Your task to perform on an android device: Check out the new ikea catalog. Image 0: 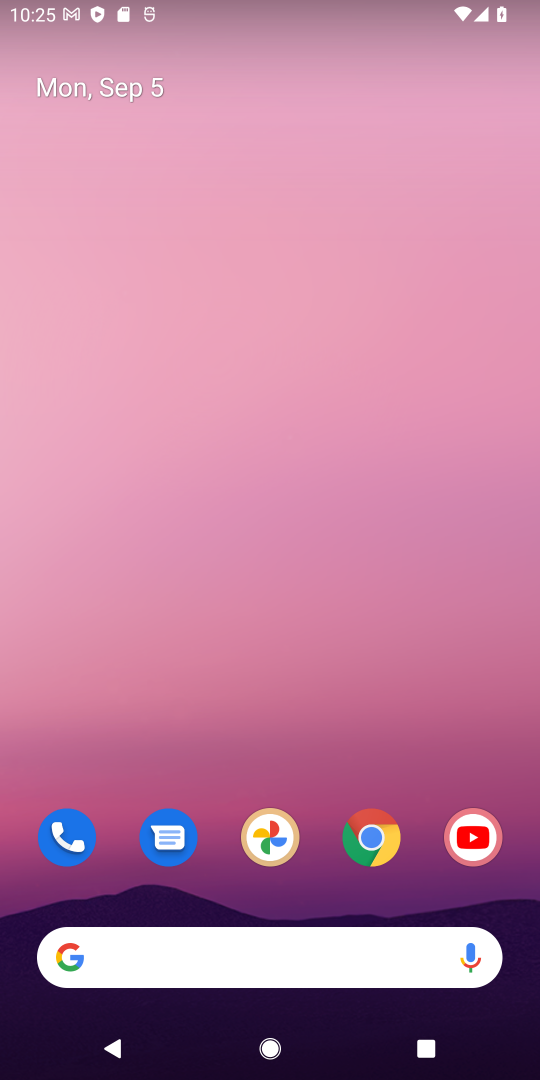
Step 0: drag from (315, 895) to (302, 113)
Your task to perform on an android device: Check out the new ikea catalog. Image 1: 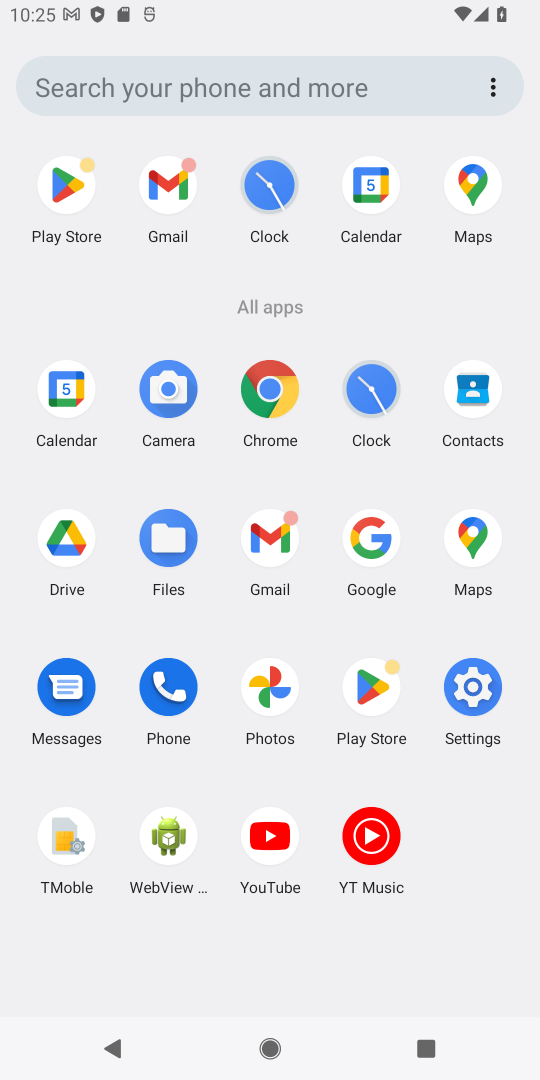
Step 1: click (261, 396)
Your task to perform on an android device: Check out the new ikea catalog. Image 2: 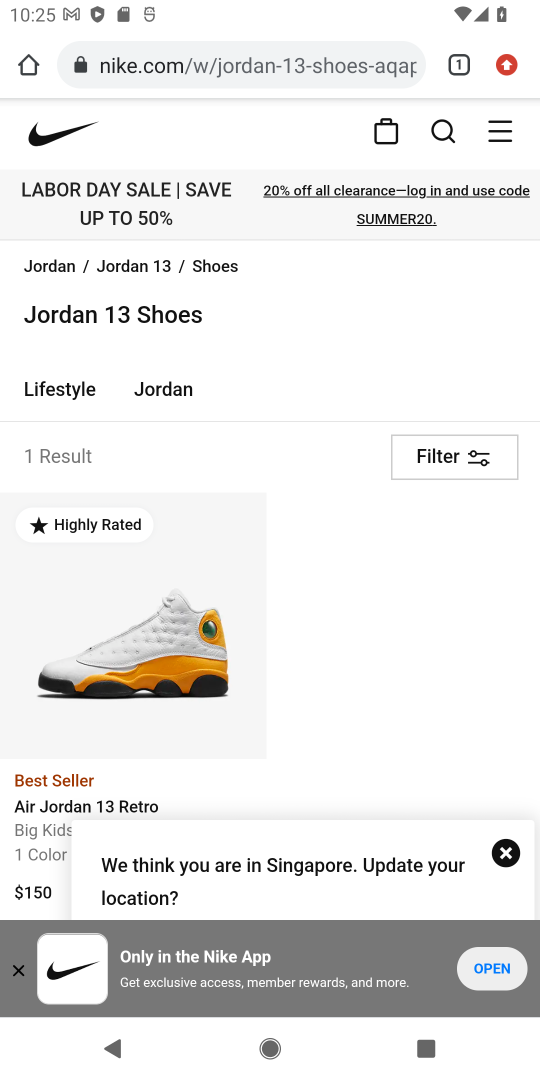
Step 2: click (299, 62)
Your task to perform on an android device: Check out the new ikea catalog. Image 3: 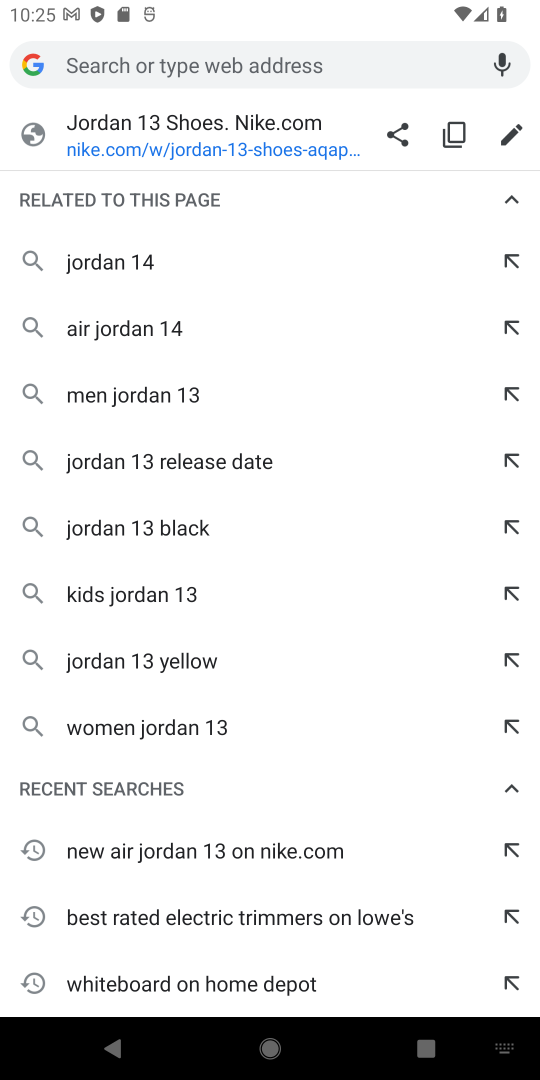
Step 3: click (199, 53)
Your task to perform on an android device: Check out the new ikea catalog. Image 4: 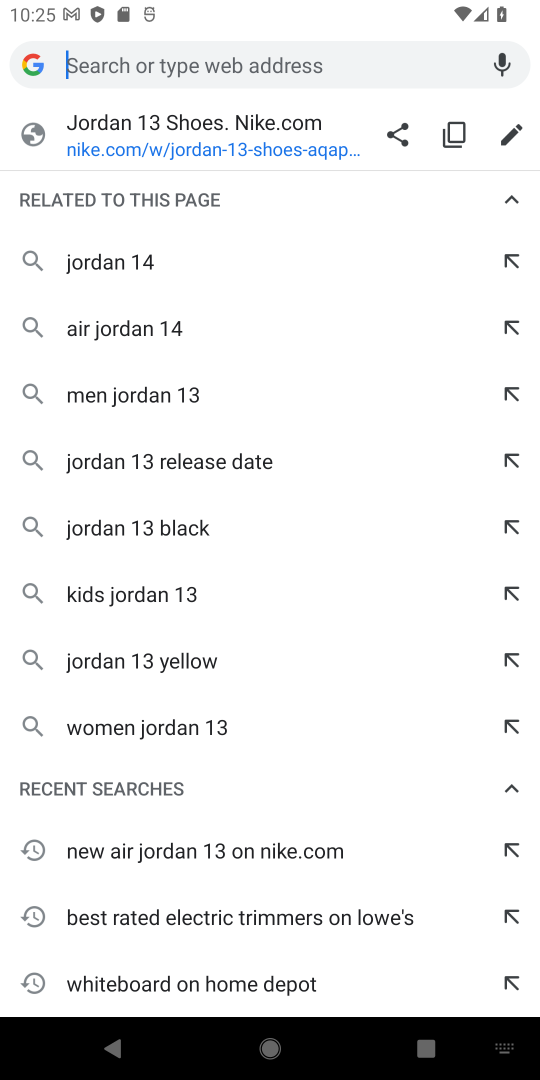
Step 4: type "new ikea catalog"
Your task to perform on an android device: Check out the new ikea catalog. Image 5: 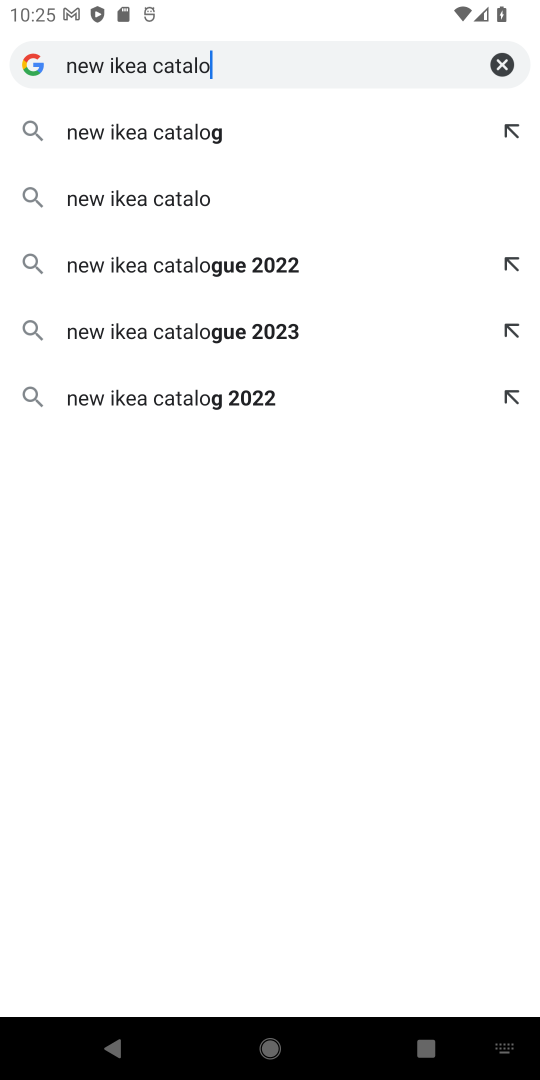
Step 5: type ""
Your task to perform on an android device: Check out the new ikea catalog. Image 6: 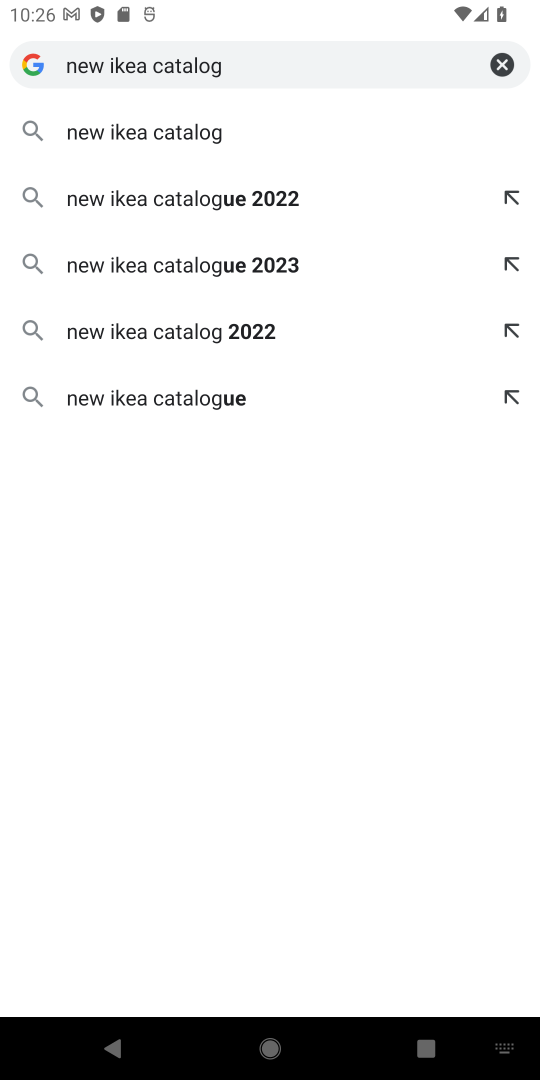
Step 6: click (220, 131)
Your task to perform on an android device: Check out the new ikea catalog. Image 7: 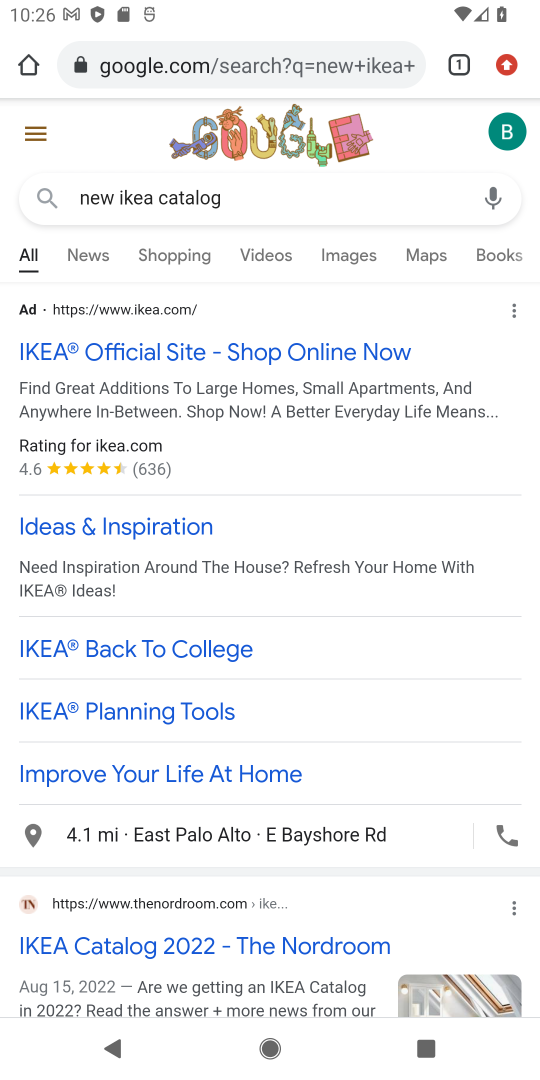
Step 7: click (239, 939)
Your task to perform on an android device: Check out the new ikea catalog. Image 8: 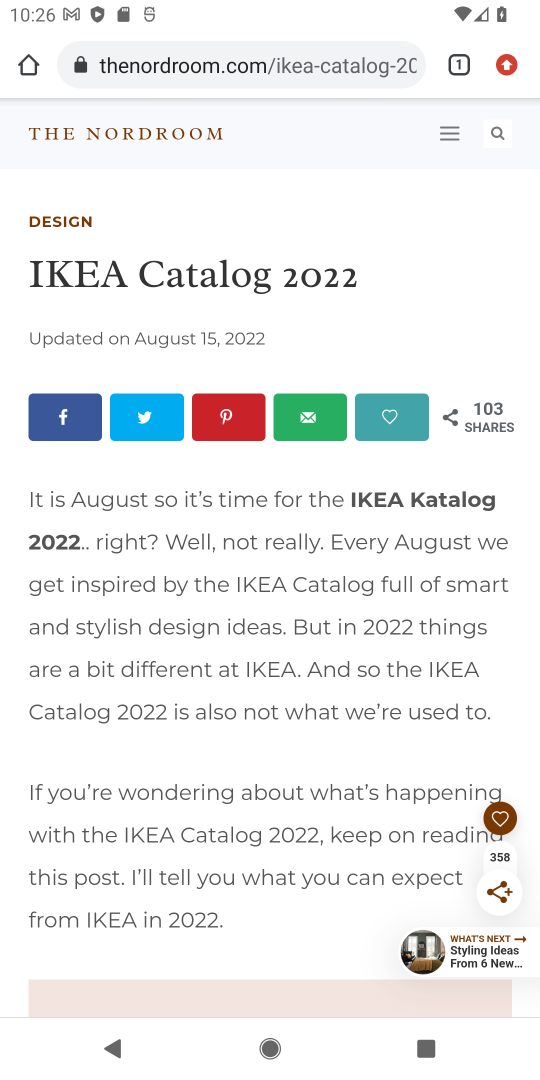
Step 8: task complete